Your task to perform on an android device: Open the calendar and show me this week's events? Image 0: 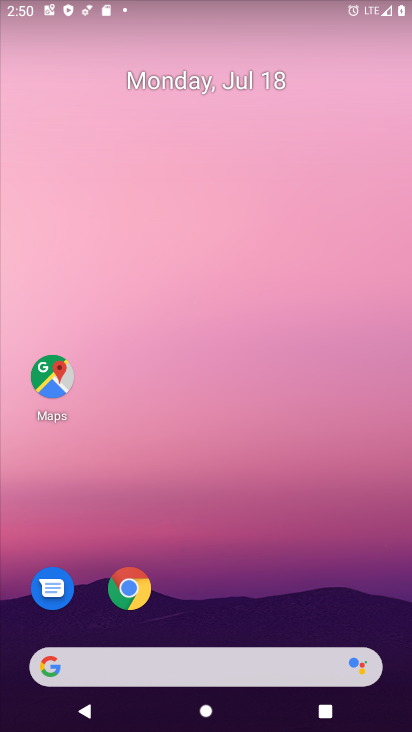
Step 0: drag from (239, 549) to (299, 9)
Your task to perform on an android device: Open the calendar and show me this week's events? Image 1: 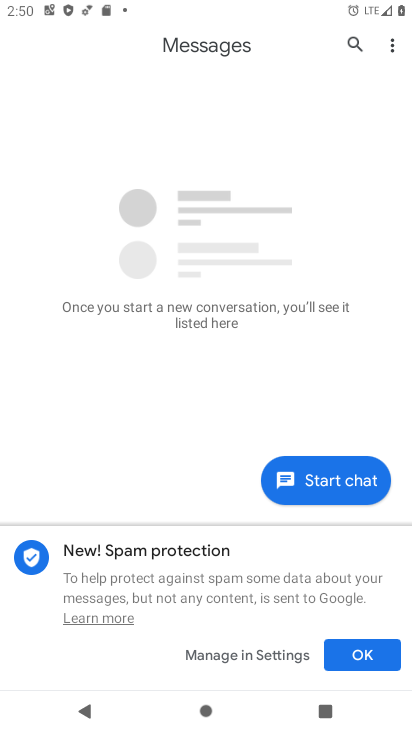
Step 1: press back button
Your task to perform on an android device: Open the calendar and show me this week's events? Image 2: 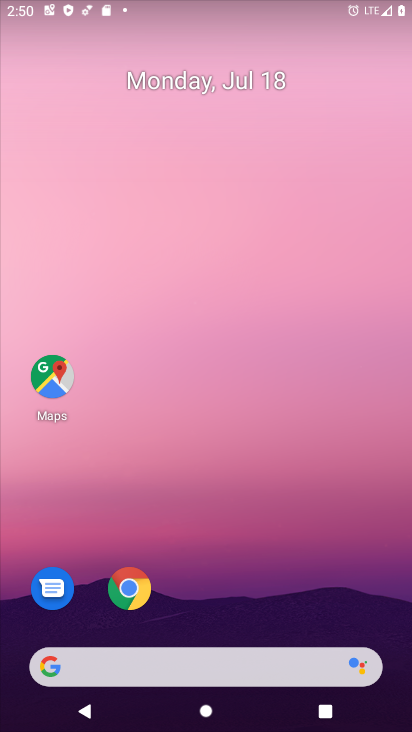
Step 2: drag from (194, 668) to (275, 0)
Your task to perform on an android device: Open the calendar and show me this week's events? Image 3: 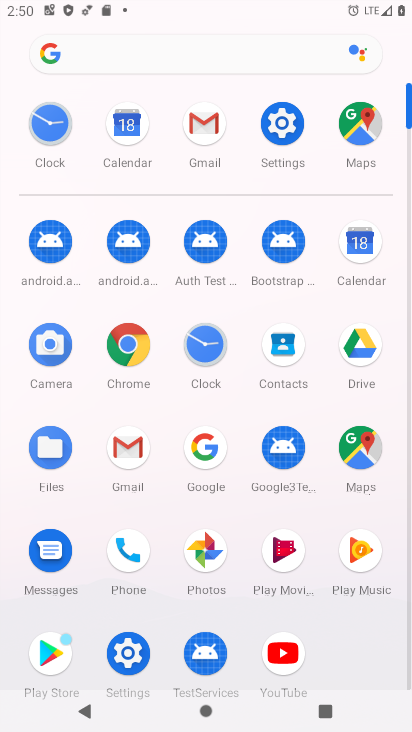
Step 3: click (367, 247)
Your task to perform on an android device: Open the calendar and show me this week's events? Image 4: 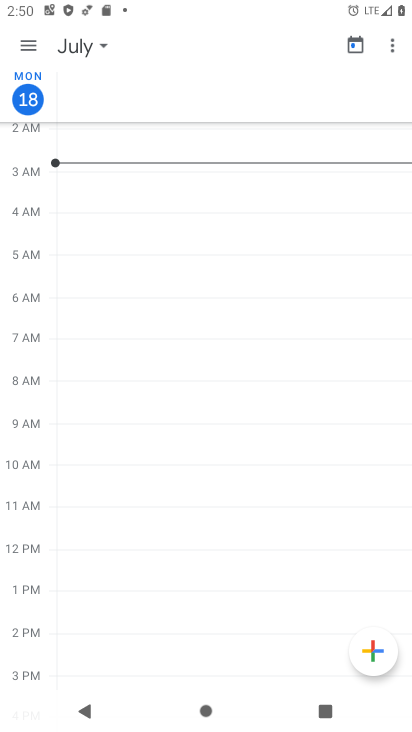
Step 4: click (76, 43)
Your task to perform on an android device: Open the calendar and show me this week's events? Image 5: 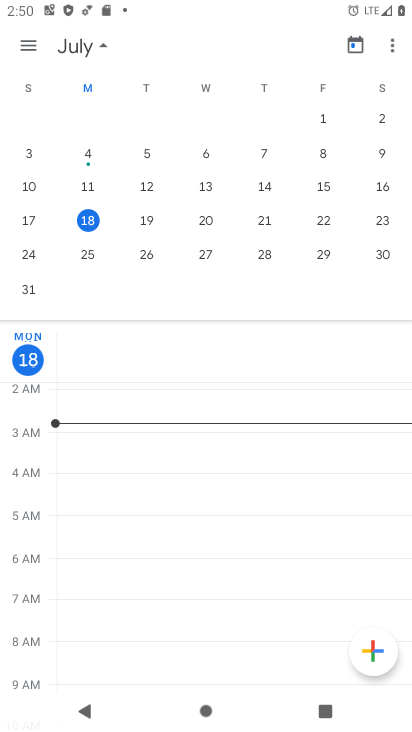
Step 5: click (21, 38)
Your task to perform on an android device: Open the calendar and show me this week's events? Image 6: 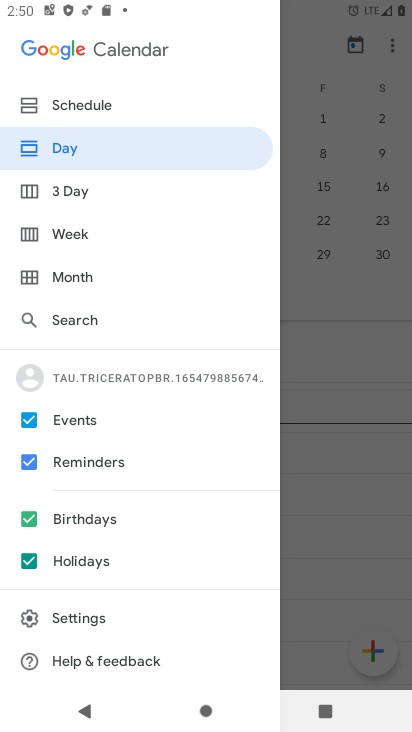
Step 6: click (108, 104)
Your task to perform on an android device: Open the calendar and show me this week's events? Image 7: 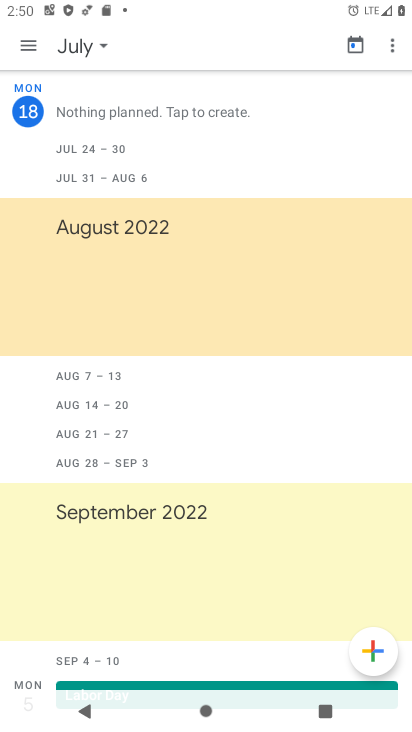
Step 7: drag from (198, 237) to (189, 664)
Your task to perform on an android device: Open the calendar and show me this week's events? Image 8: 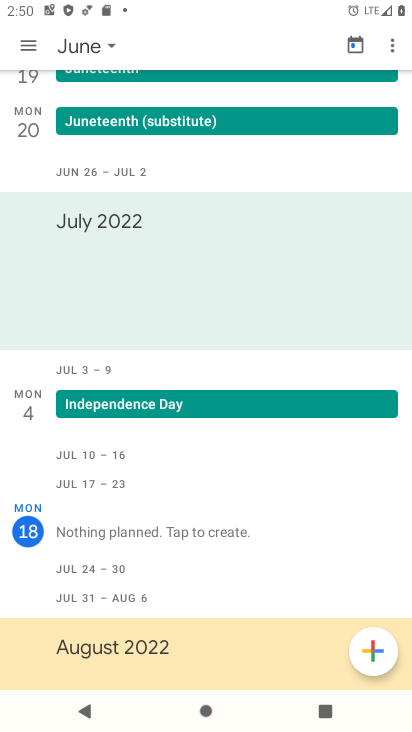
Step 8: click (97, 36)
Your task to perform on an android device: Open the calendar and show me this week's events? Image 9: 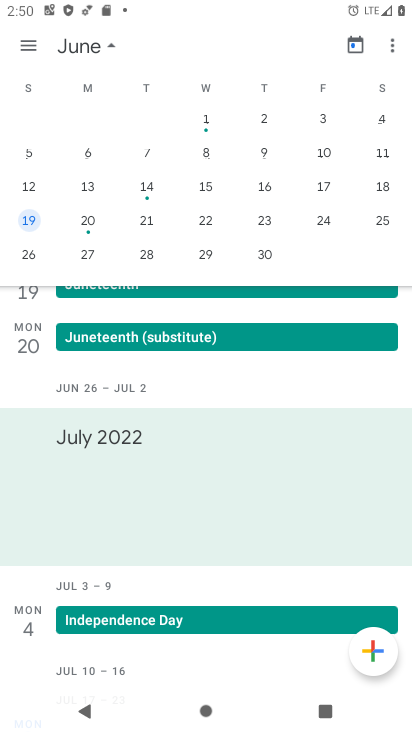
Step 9: click (380, 186)
Your task to perform on an android device: Open the calendar and show me this week's events? Image 10: 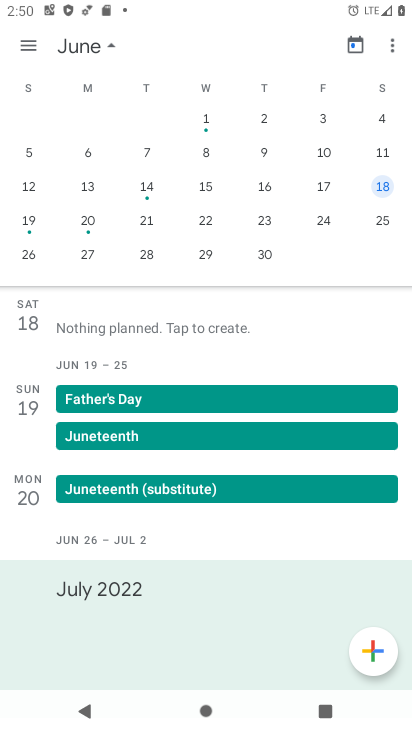
Step 10: task complete